Your task to perform on an android device: remove spam from my inbox in the gmail app Image 0: 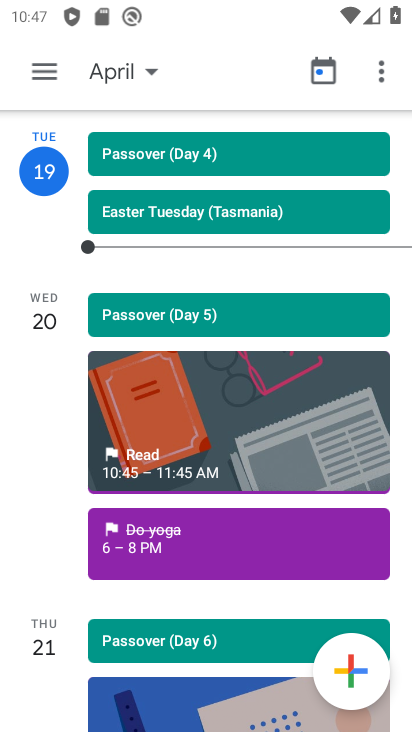
Step 0: press home button
Your task to perform on an android device: remove spam from my inbox in the gmail app Image 1: 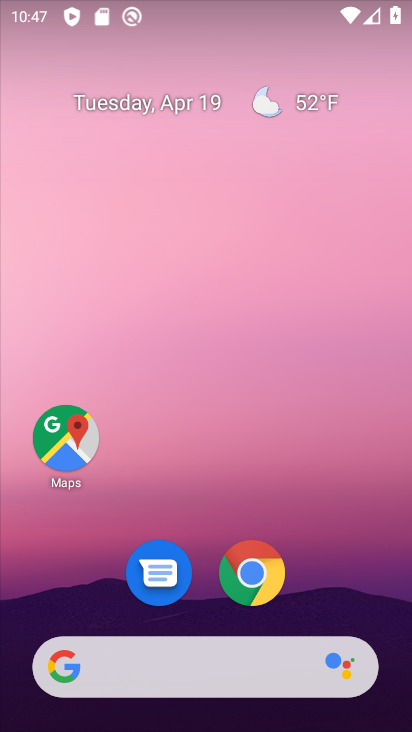
Step 1: drag from (213, 724) to (223, 1)
Your task to perform on an android device: remove spam from my inbox in the gmail app Image 2: 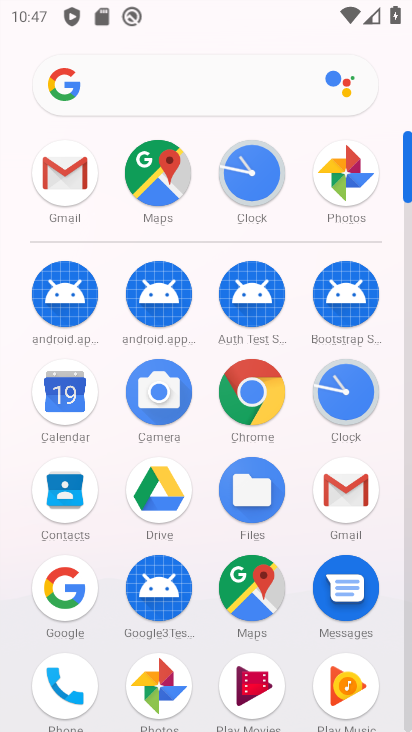
Step 2: click (346, 485)
Your task to perform on an android device: remove spam from my inbox in the gmail app Image 3: 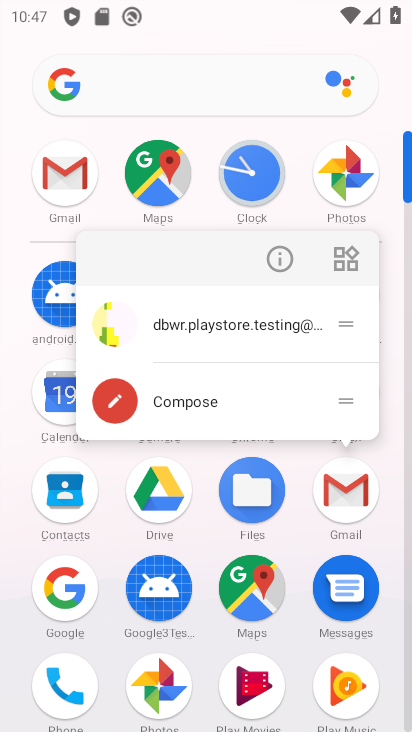
Step 3: click (346, 486)
Your task to perform on an android device: remove spam from my inbox in the gmail app Image 4: 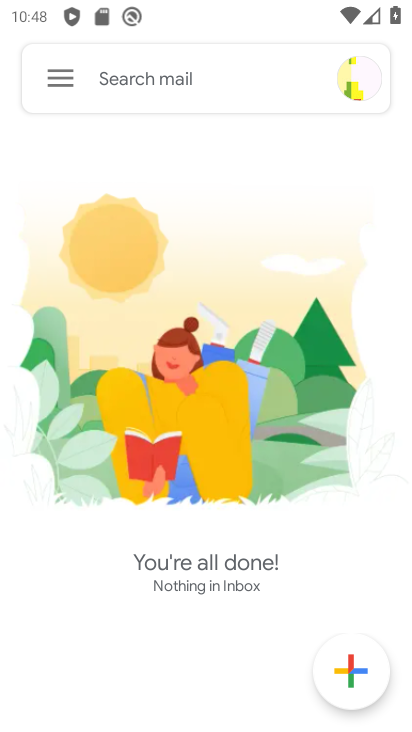
Step 4: task complete